Your task to perform on an android device: delete the emails in spam in the gmail app Image 0: 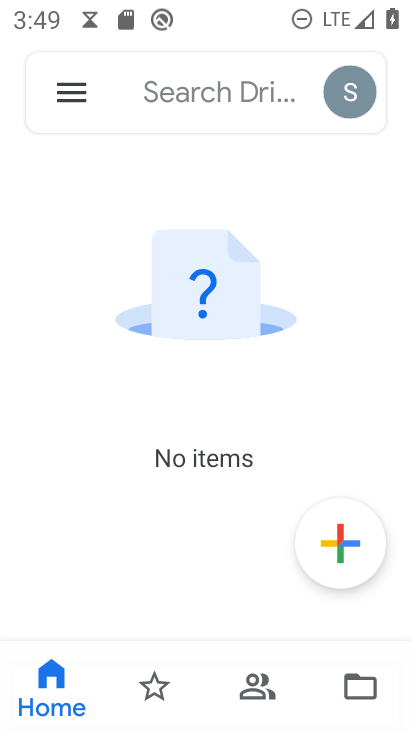
Step 0: press home button
Your task to perform on an android device: delete the emails in spam in the gmail app Image 1: 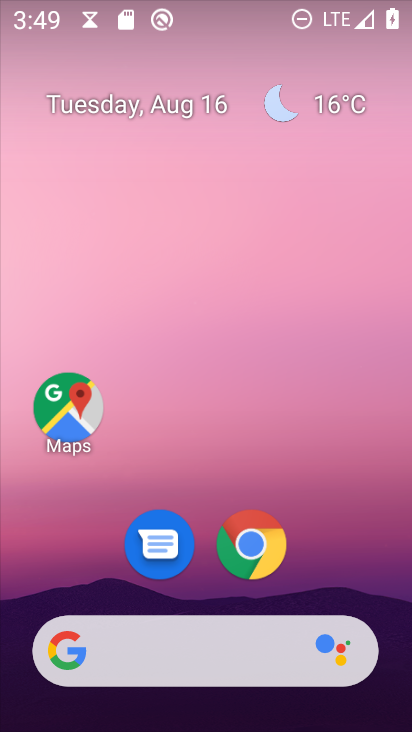
Step 1: drag from (189, 650) to (215, 202)
Your task to perform on an android device: delete the emails in spam in the gmail app Image 2: 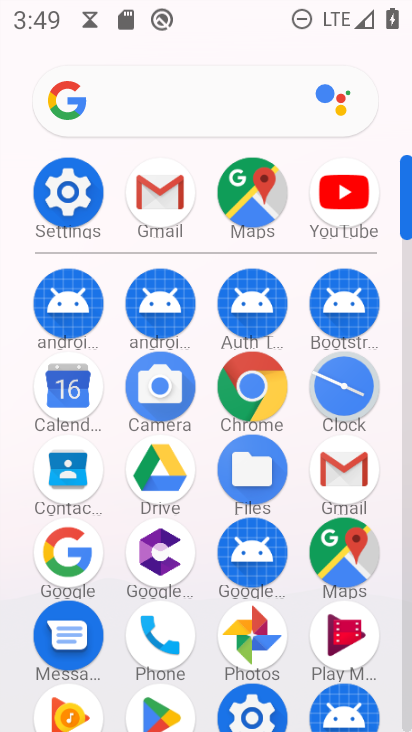
Step 2: click (158, 187)
Your task to perform on an android device: delete the emails in spam in the gmail app Image 3: 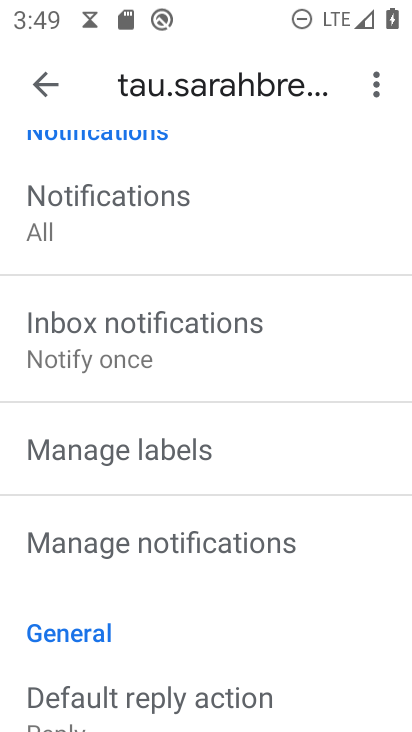
Step 3: press back button
Your task to perform on an android device: delete the emails in spam in the gmail app Image 4: 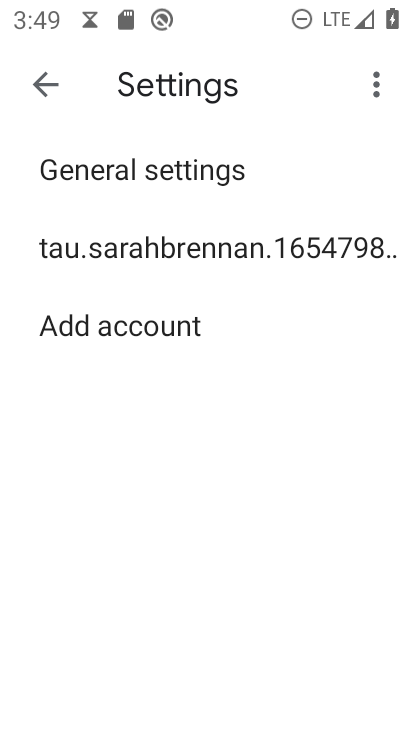
Step 4: press back button
Your task to perform on an android device: delete the emails in spam in the gmail app Image 5: 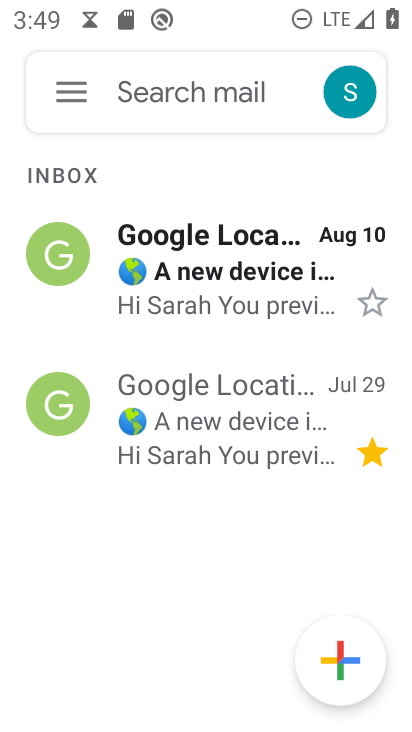
Step 5: click (68, 91)
Your task to perform on an android device: delete the emails in spam in the gmail app Image 6: 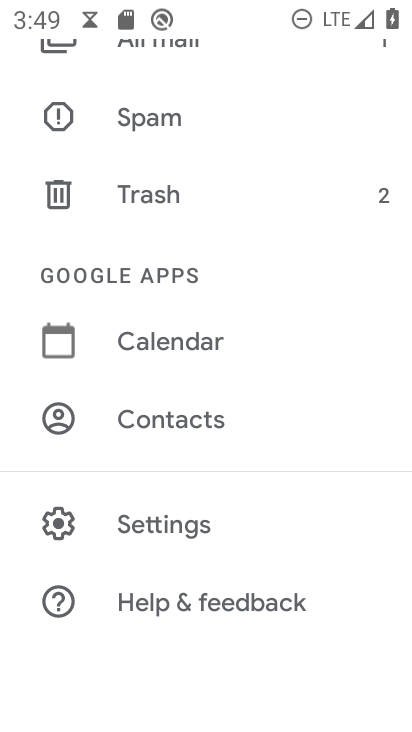
Step 6: click (167, 123)
Your task to perform on an android device: delete the emails in spam in the gmail app Image 7: 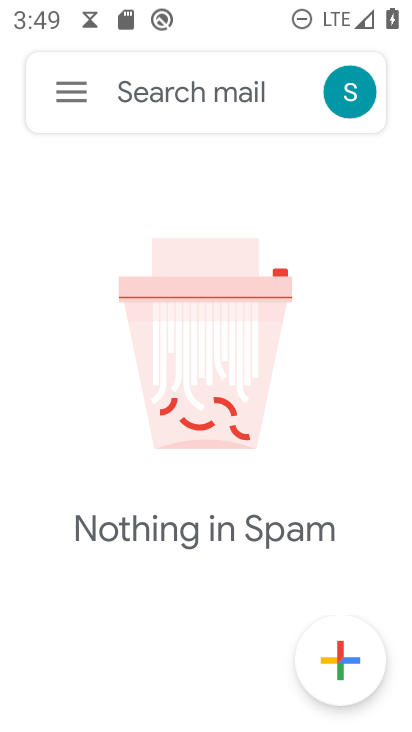
Step 7: task complete